Your task to perform on an android device: Is it going to rain today? Image 0: 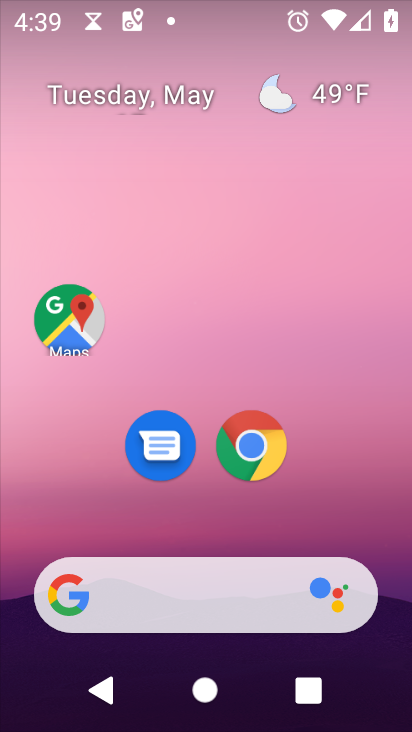
Step 0: drag from (62, 200) to (360, 227)
Your task to perform on an android device: Is it going to rain today? Image 1: 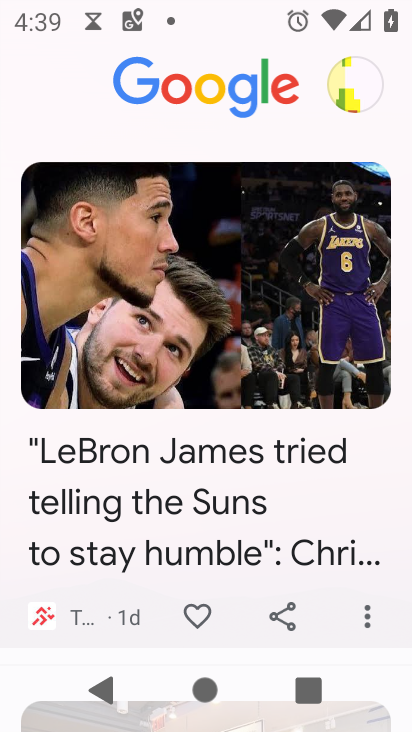
Step 1: drag from (396, 269) to (77, 281)
Your task to perform on an android device: Is it going to rain today? Image 2: 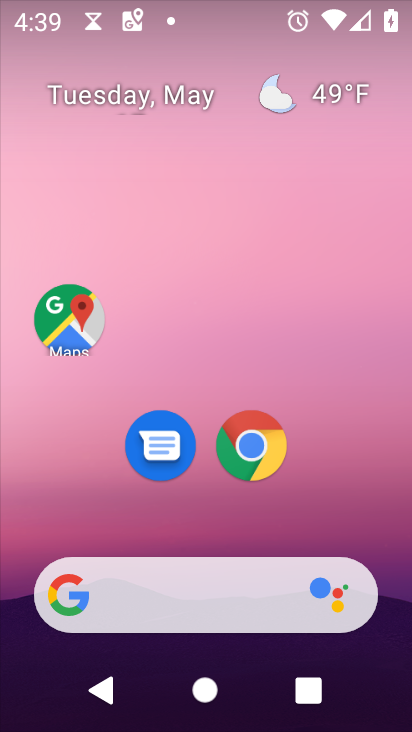
Step 2: click (325, 88)
Your task to perform on an android device: Is it going to rain today? Image 3: 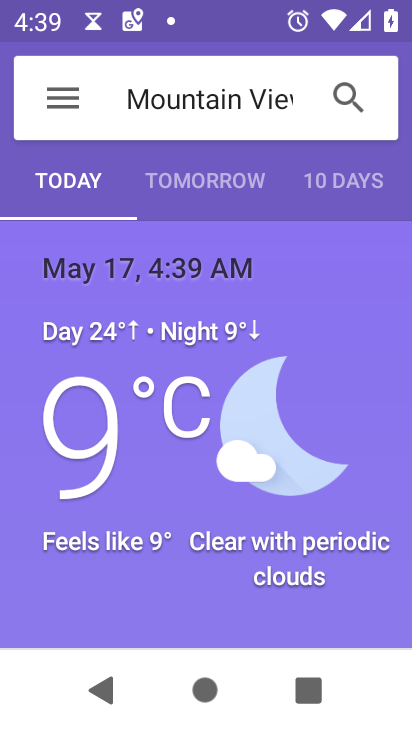
Step 3: click (306, 180)
Your task to perform on an android device: Is it going to rain today? Image 4: 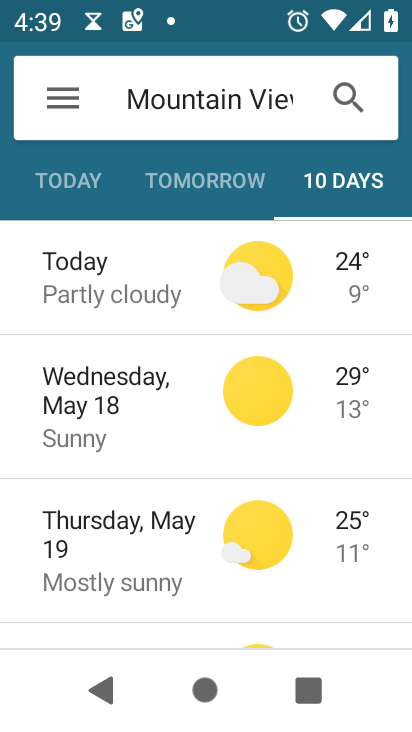
Step 4: task complete